Your task to perform on an android device: Go to wifi settings Image 0: 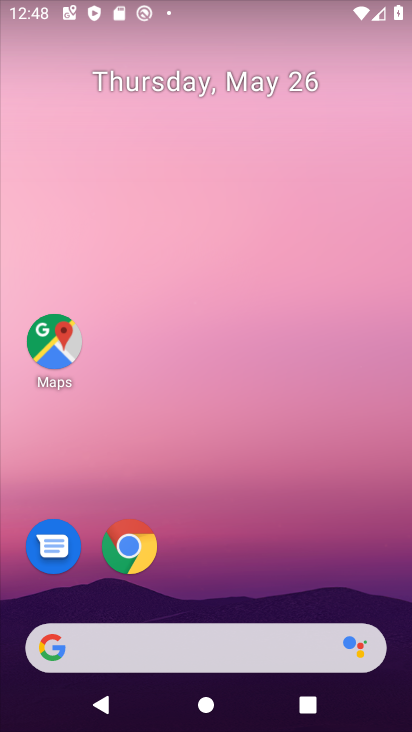
Step 0: drag from (335, 17) to (261, 566)
Your task to perform on an android device: Go to wifi settings Image 1: 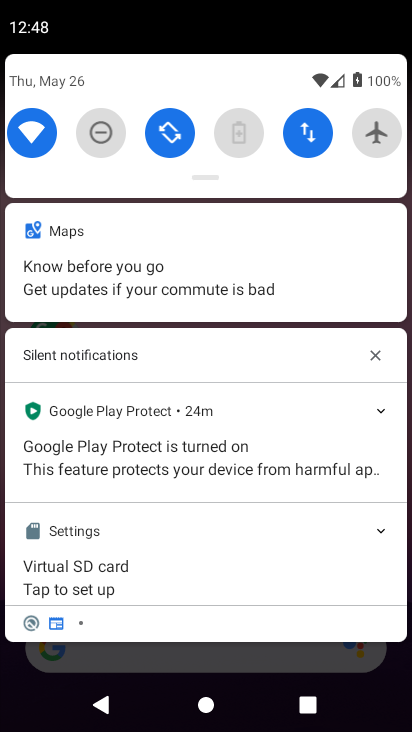
Step 1: click (34, 141)
Your task to perform on an android device: Go to wifi settings Image 2: 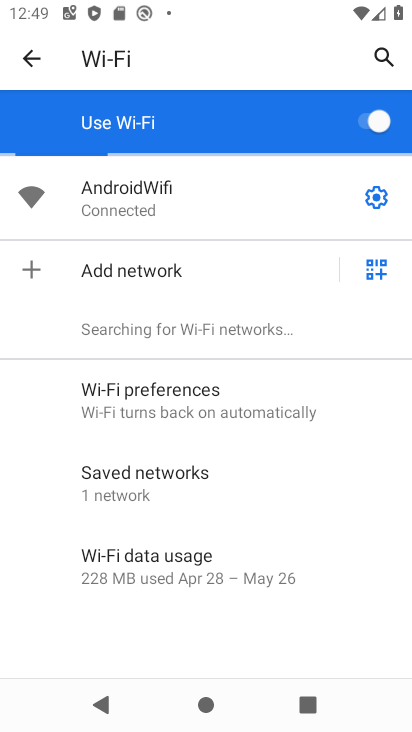
Step 2: task complete